Your task to perform on an android device: Go to eBay Image 0: 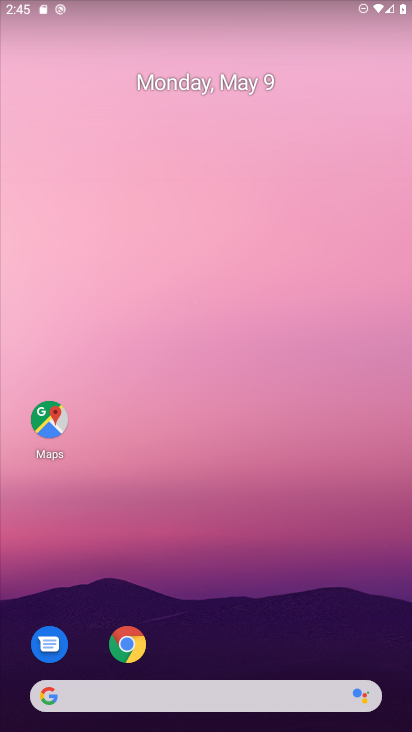
Step 0: click (132, 654)
Your task to perform on an android device: Go to eBay Image 1: 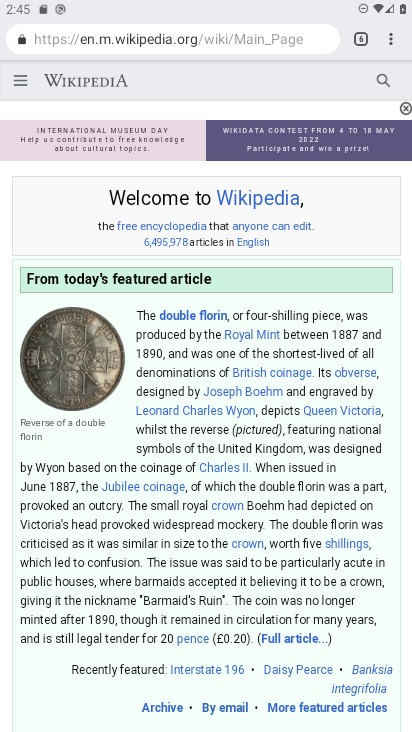
Step 1: click (173, 36)
Your task to perform on an android device: Go to eBay Image 2: 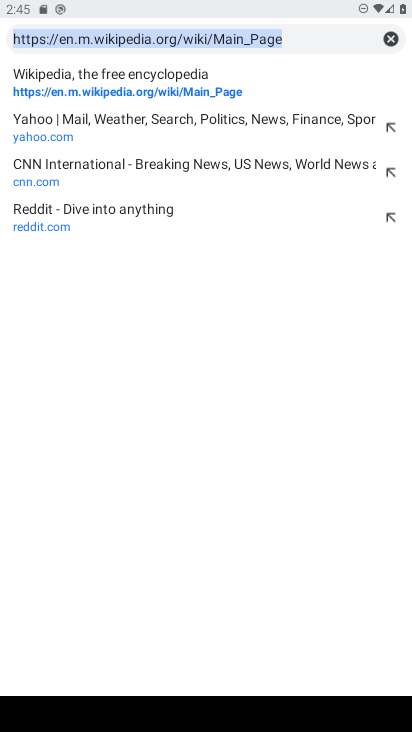
Step 2: type "www.ebay.com"
Your task to perform on an android device: Go to eBay Image 3: 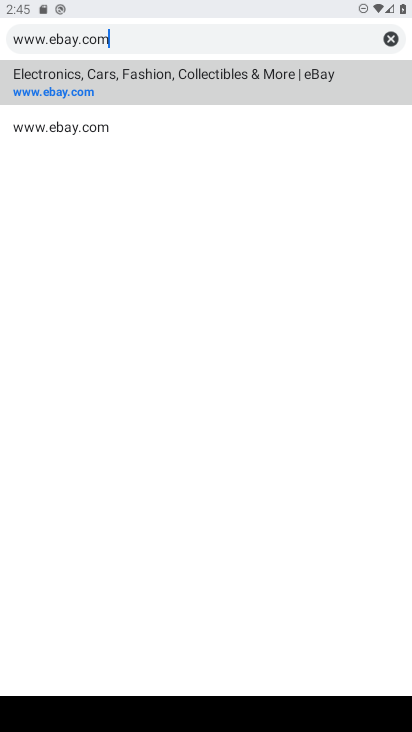
Step 3: click (38, 97)
Your task to perform on an android device: Go to eBay Image 4: 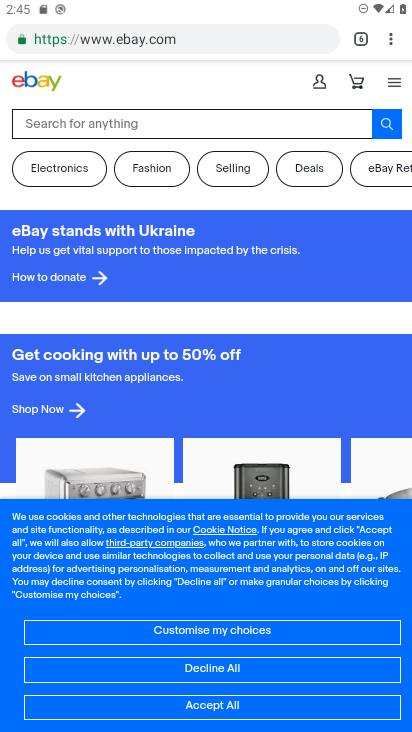
Step 4: task complete